Your task to perform on an android device: turn off airplane mode Image 0: 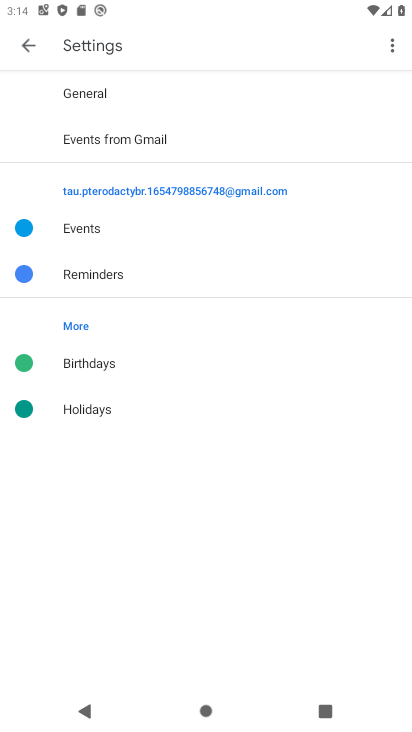
Step 0: press home button
Your task to perform on an android device: turn off airplane mode Image 1: 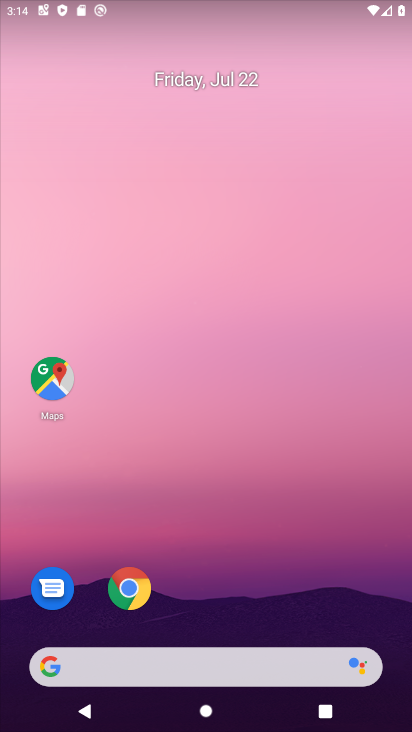
Step 1: drag from (167, 647) to (221, 220)
Your task to perform on an android device: turn off airplane mode Image 2: 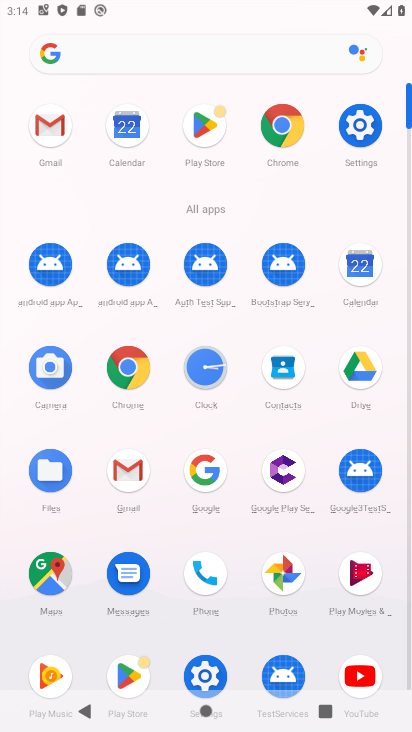
Step 2: click (358, 134)
Your task to perform on an android device: turn off airplane mode Image 3: 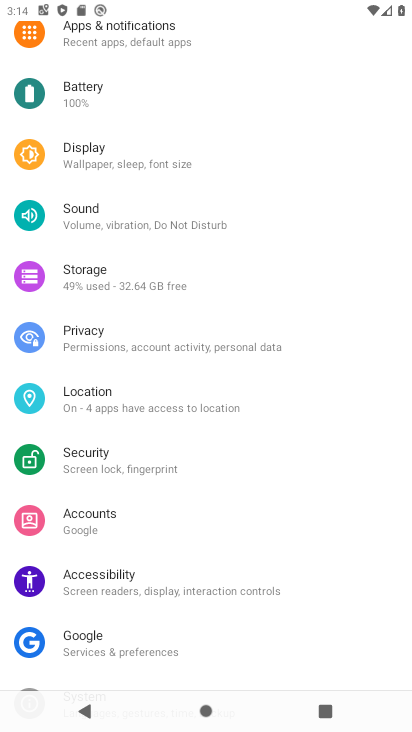
Step 3: drag from (175, 71) to (189, 558)
Your task to perform on an android device: turn off airplane mode Image 4: 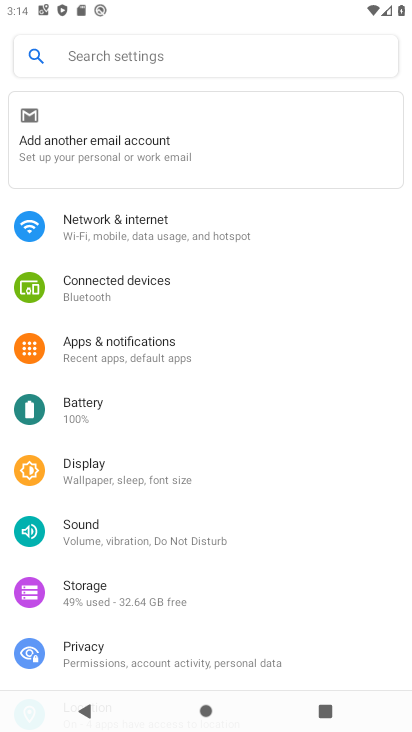
Step 4: click (128, 227)
Your task to perform on an android device: turn off airplane mode Image 5: 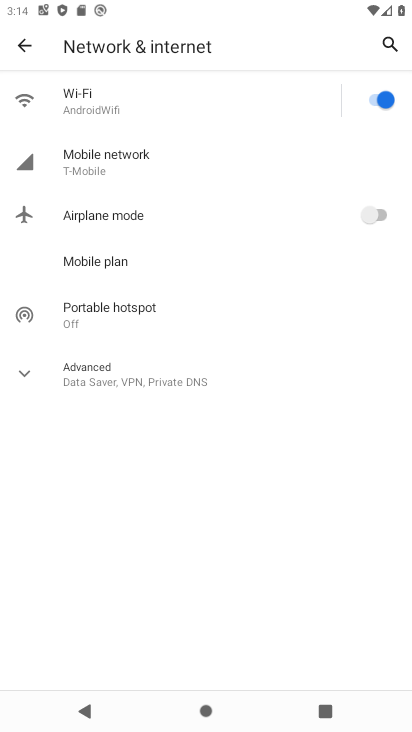
Step 5: task complete